Your task to perform on an android device: turn pop-ups off in chrome Image 0: 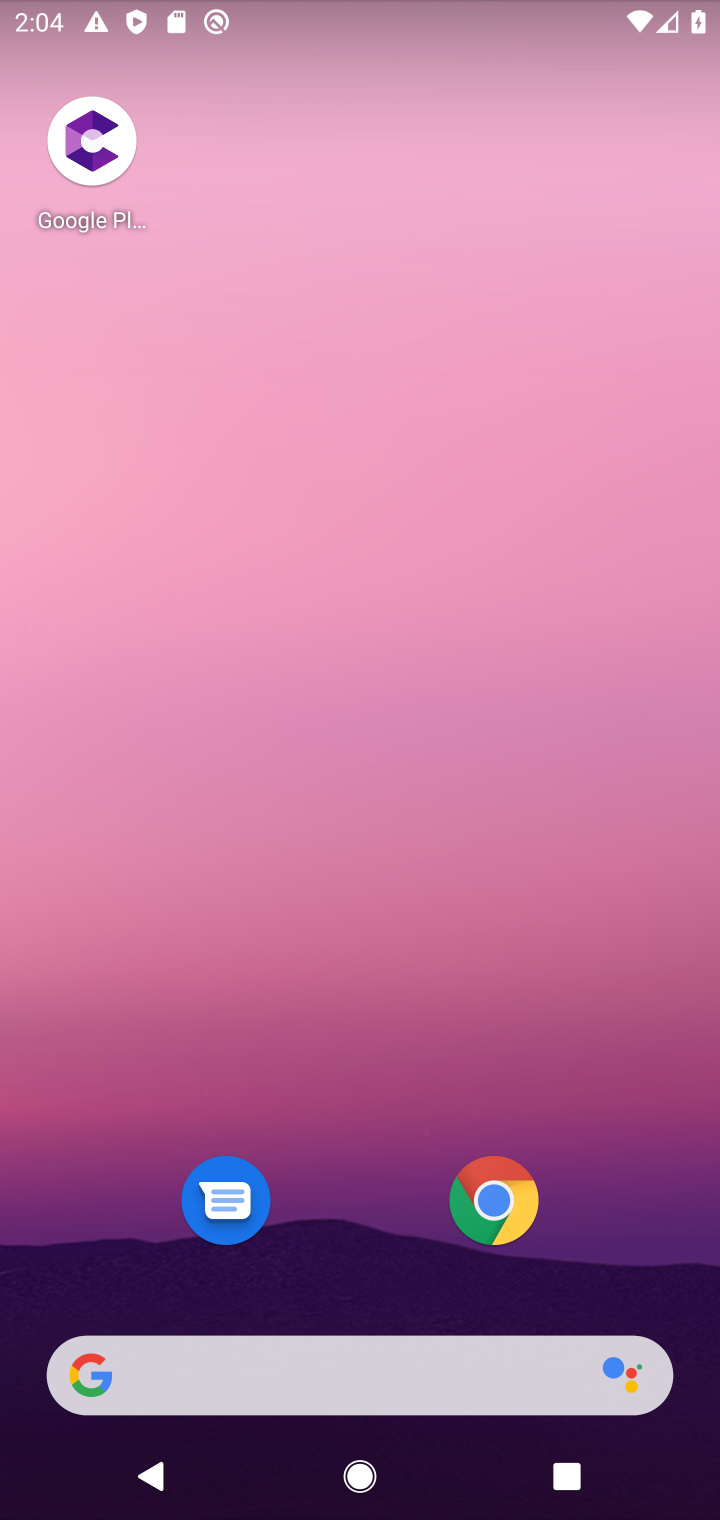
Step 0: click (504, 1208)
Your task to perform on an android device: turn pop-ups off in chrome Image 1: 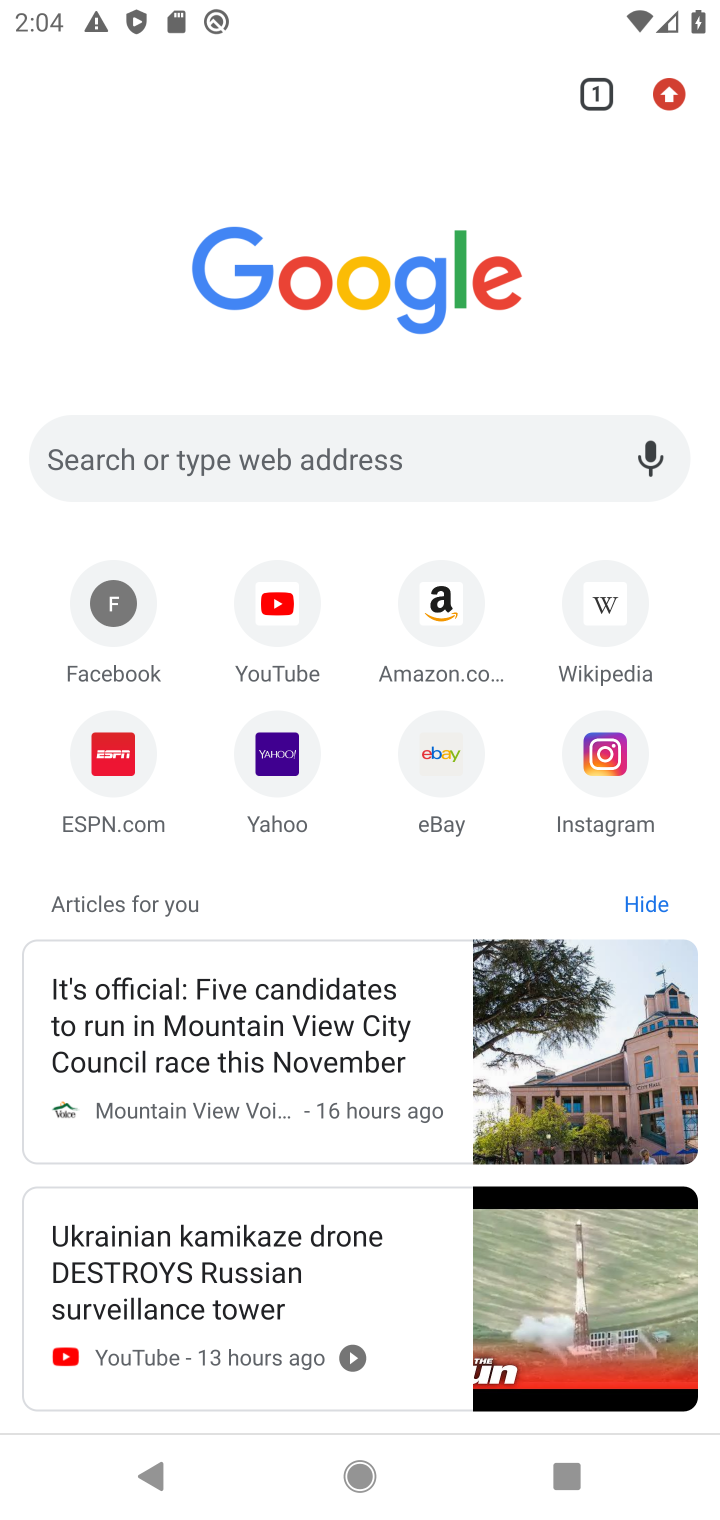
Step 1: click (666, 99)
Your task to perform on an android device: turn pop-ups off in chrome Image 2: 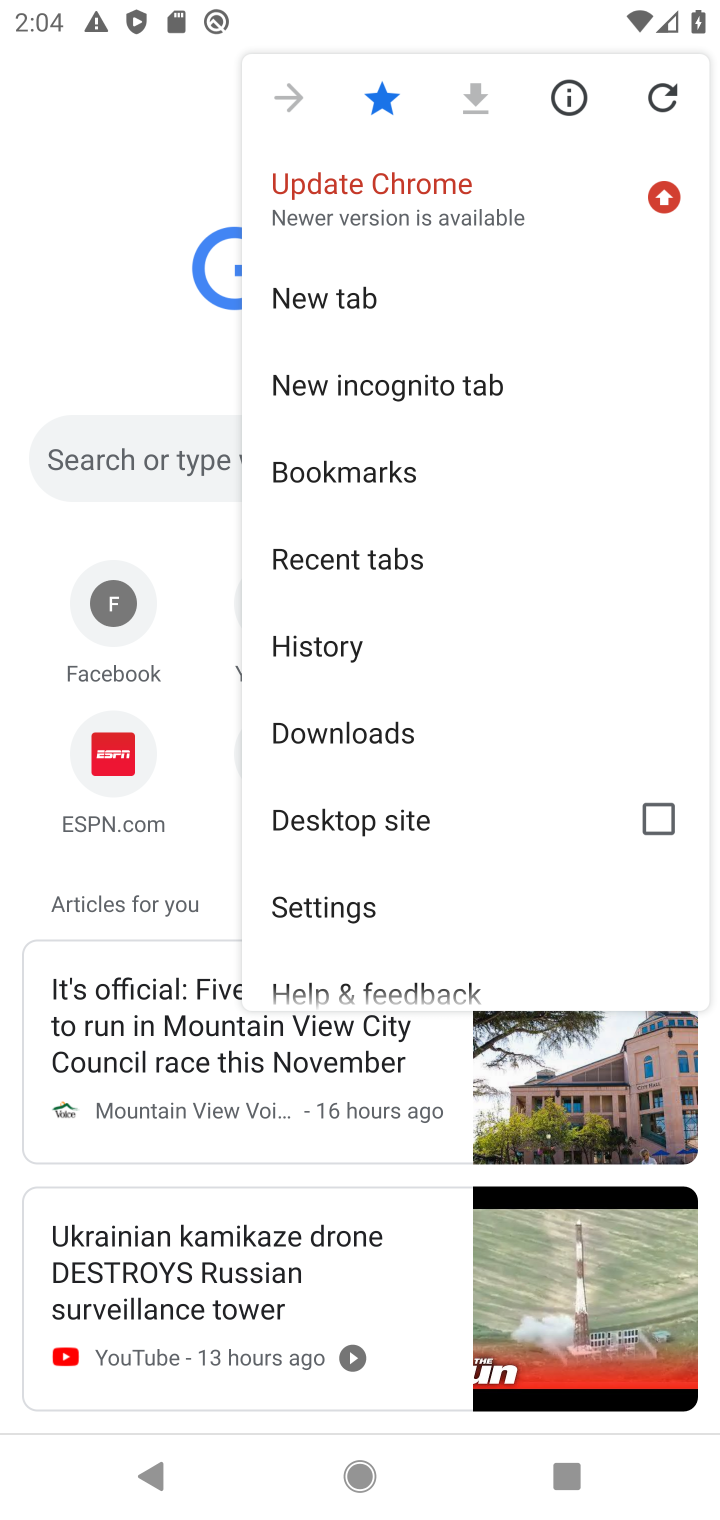
Step 2: click (308, 892)
Your task to perform on an android device: turn pop-ups off in chrome Image 3: 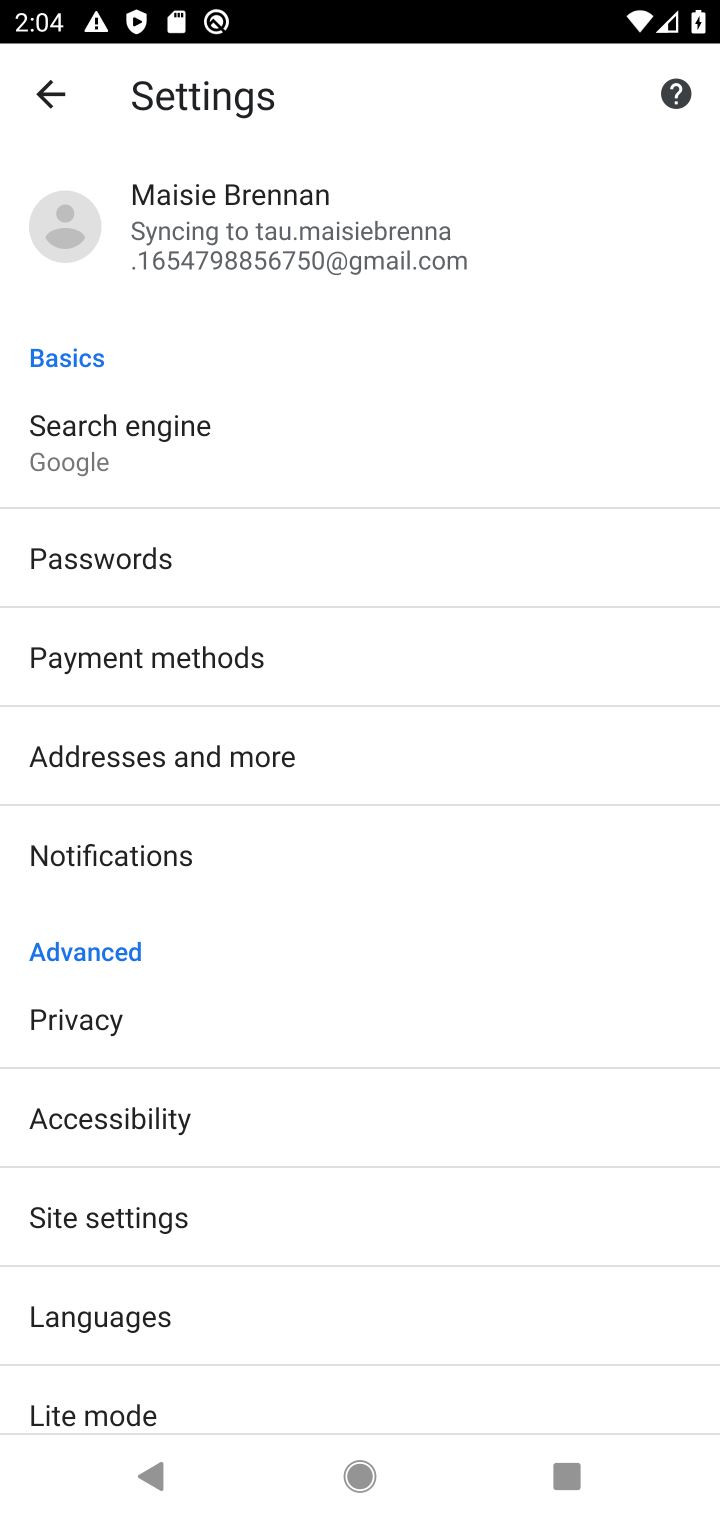
Step 3: click (123, 1219)
Your task to perform on an android device: turn pop-ups off in chrome Image 4: 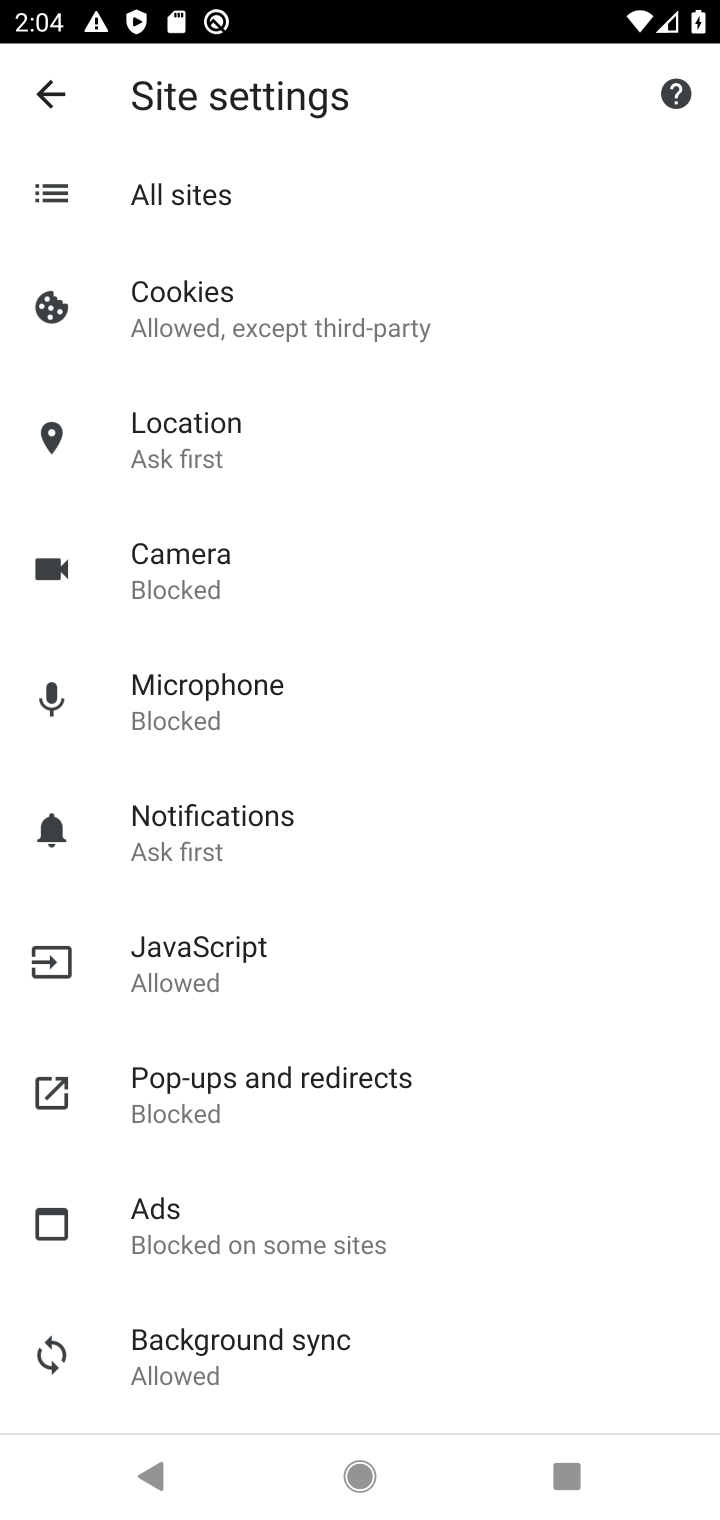
Step 4: click (223, 1077)
Your task to perform on an android device: turn pop-ups off in chrome Image 5: 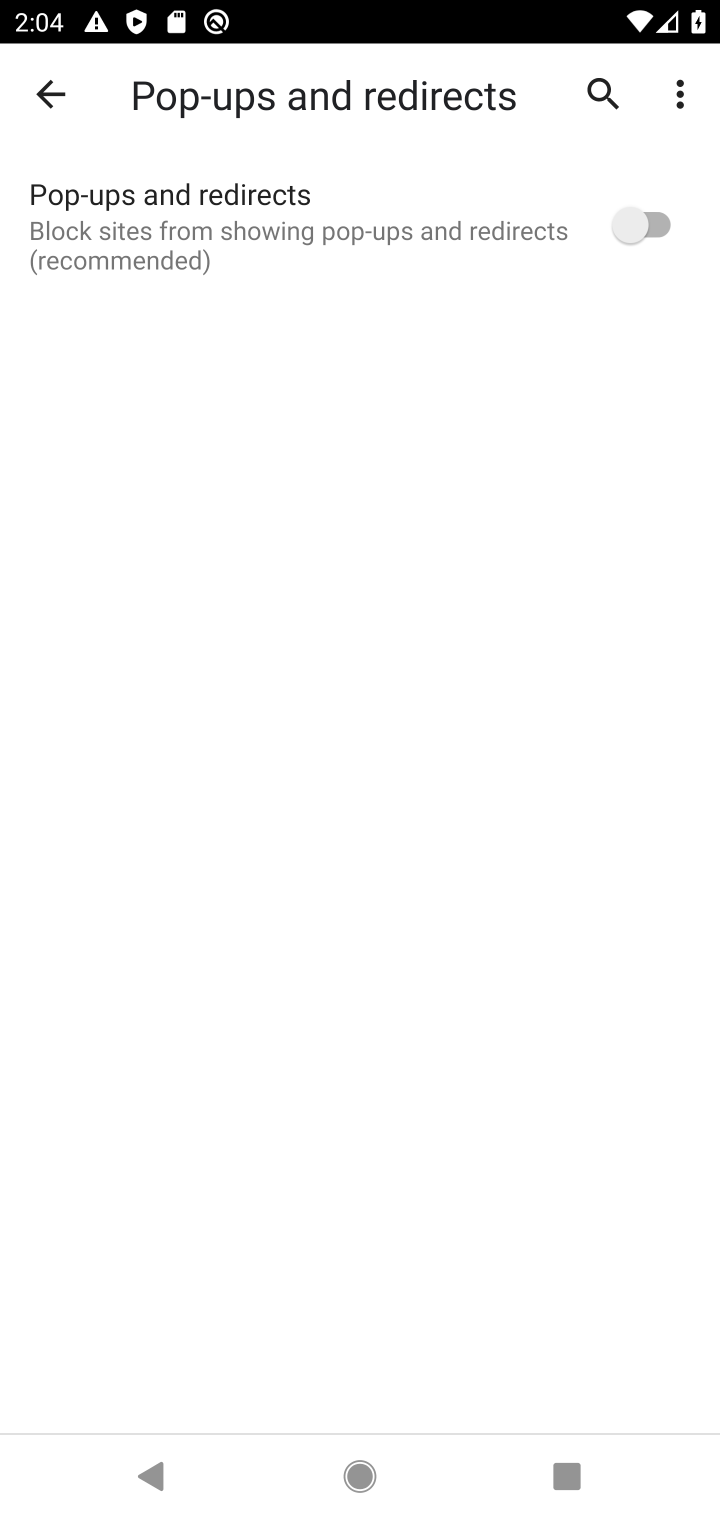
Step 5: click (636, 235)
Your task to perform on an android device: turn pop-ups off in chrome Image 6: 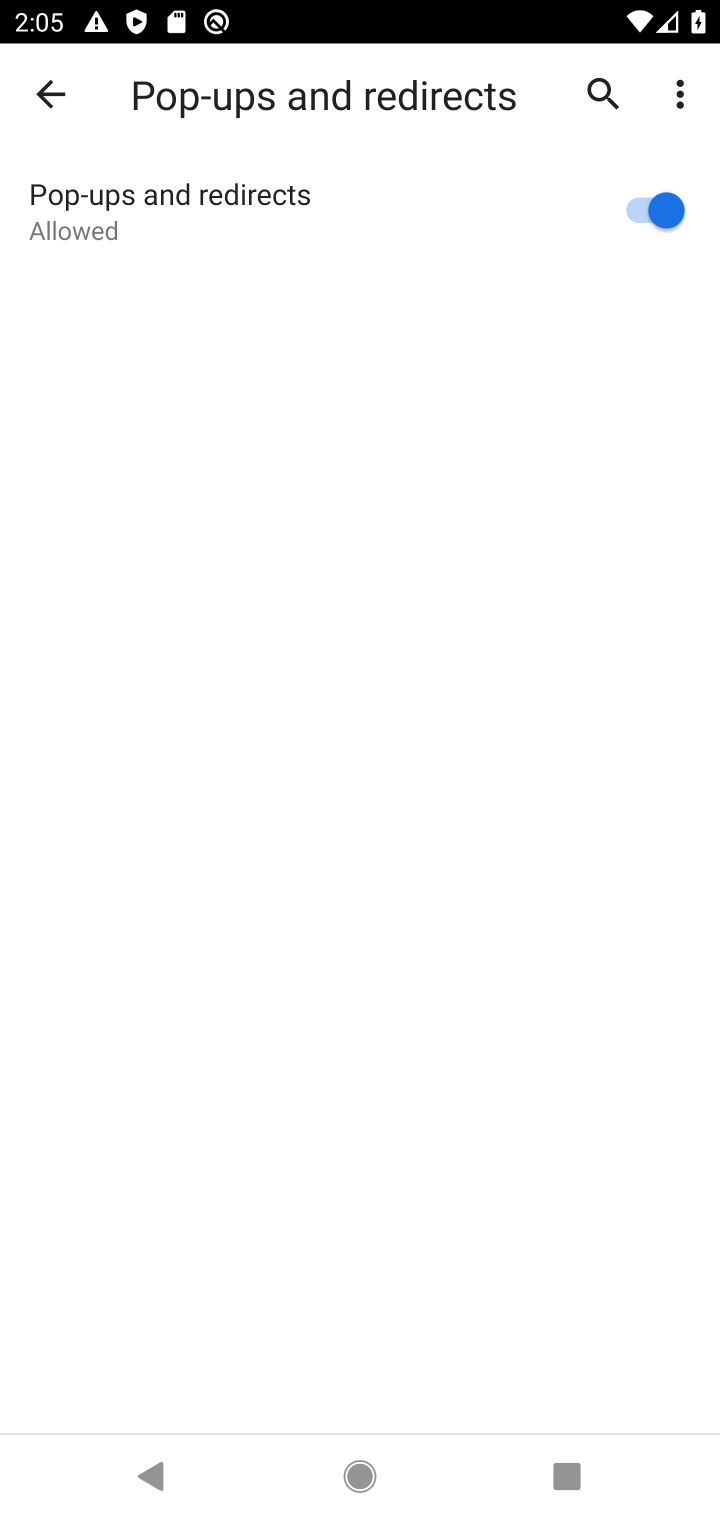
Step 6: task complete